Your task to perform on an android device: Open Chrome and go to settings Image 0: 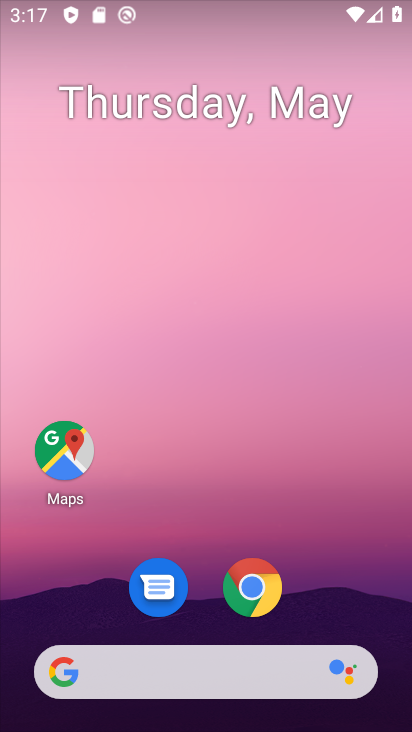
Step 0: click (259, 594)
Your task to perform on an android device: Open Chrome and go to settings Image 1: 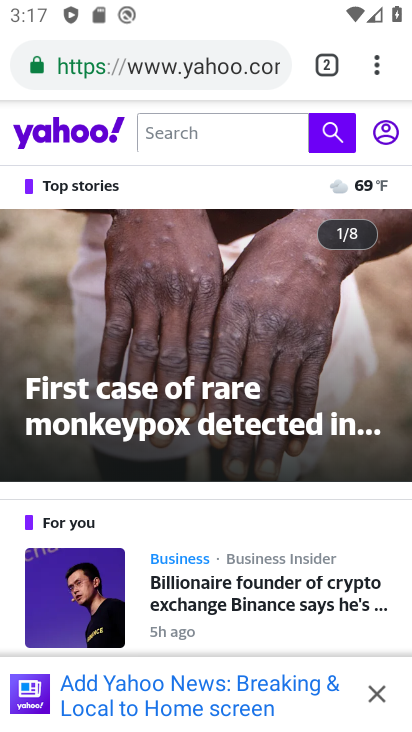
Step 1: click (379, 71)
Your task to perform on an android device: Open Chrome and go to settings Image 2: 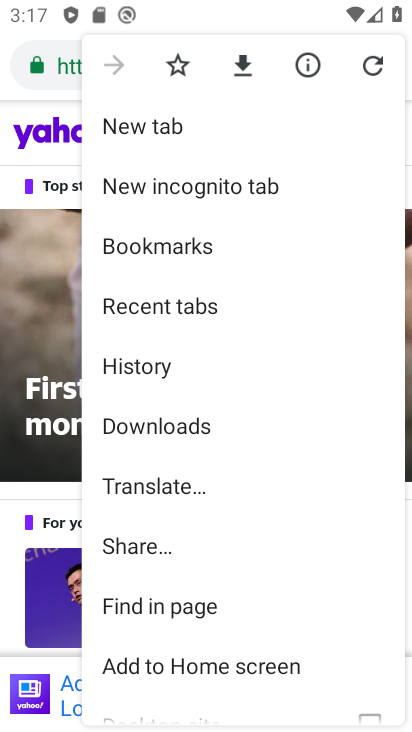
Step 2: drag from (171, 640) to (172, 335)
Your task to perform on an android device: Open Chrome and go to settings Image 3: 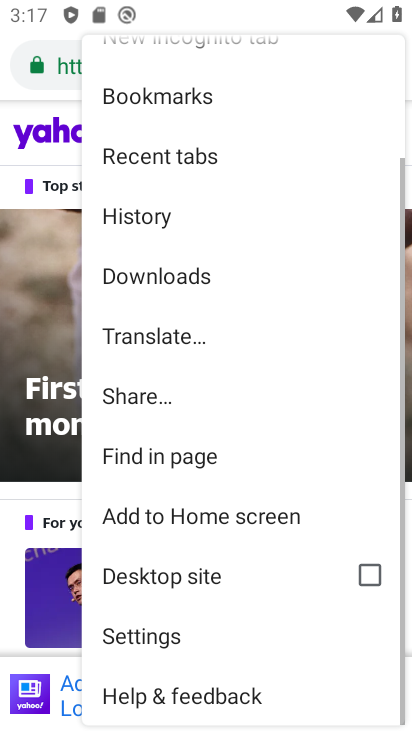
Step 3: click (151, 635)
Your task to perform on an android device: Open Chrome and go to settings Image 4: 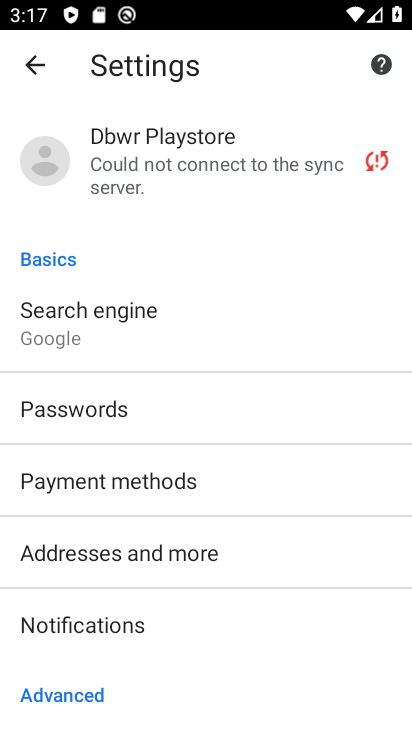
Step 4: task complete